Your task to perform on an android device: manage bookmarks in the chrome app Image 0: 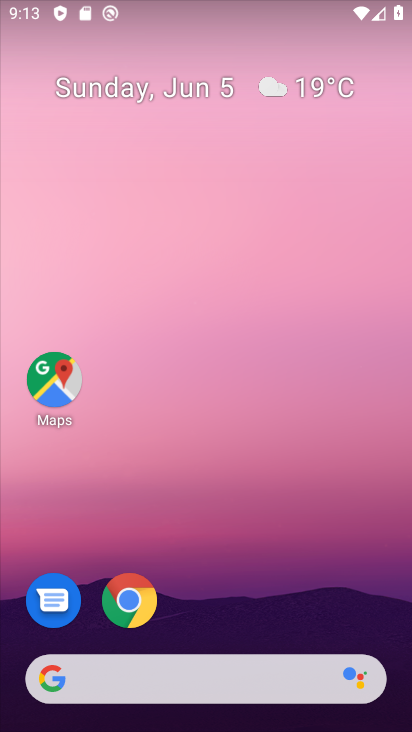
Step 0: task complete